Your task to perform on an android device: Go to Maps Image 0: 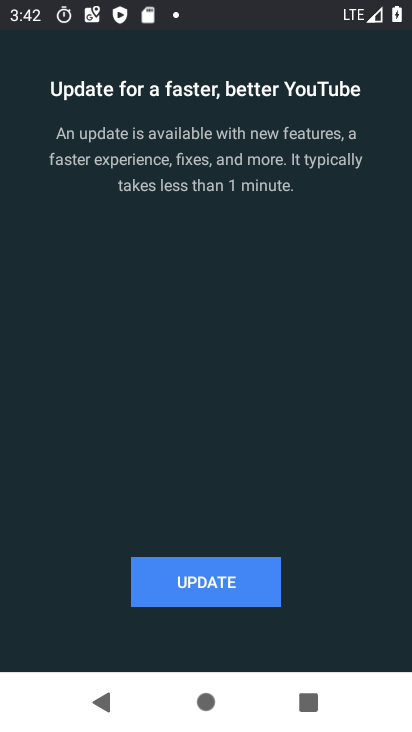
Step 0: press back button
Your task to perform on an android device: Go to Maps Image 1: 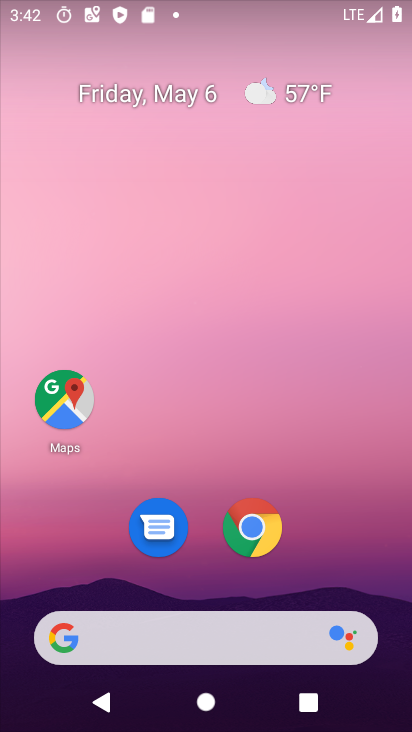
Step 1: click (61, 413)
Your task to perform on an android device: Go to Maps Image 2: 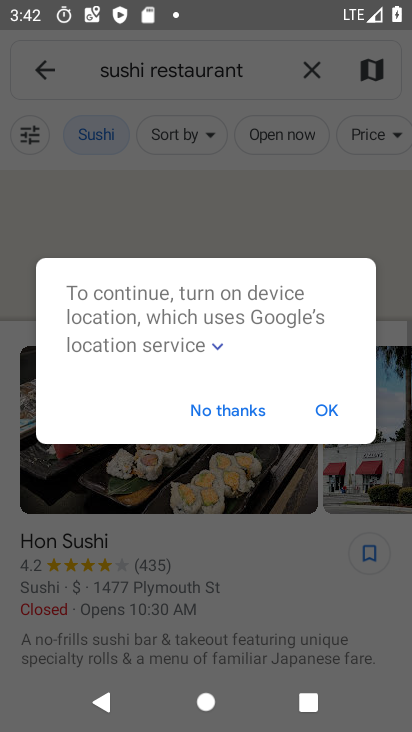
Step 2: task complete